Your task to perform on an android device: turn on showing notifications on the lock screen Image 0: 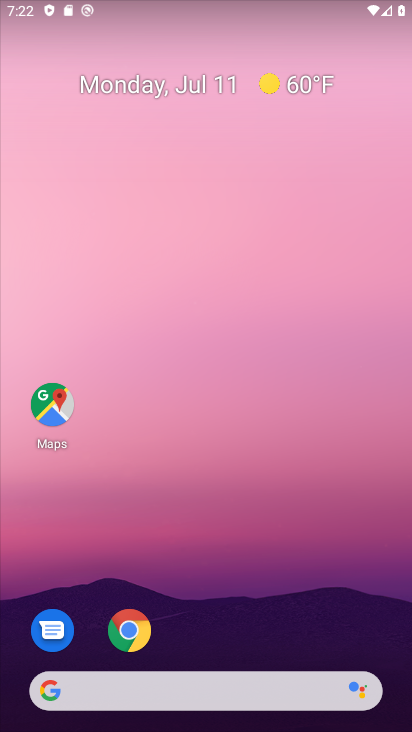
Step 0: drag from (385, 646) to (310, 19)
Your task to perform on an android device: turn on showing notifications on the lock screen Image 1: 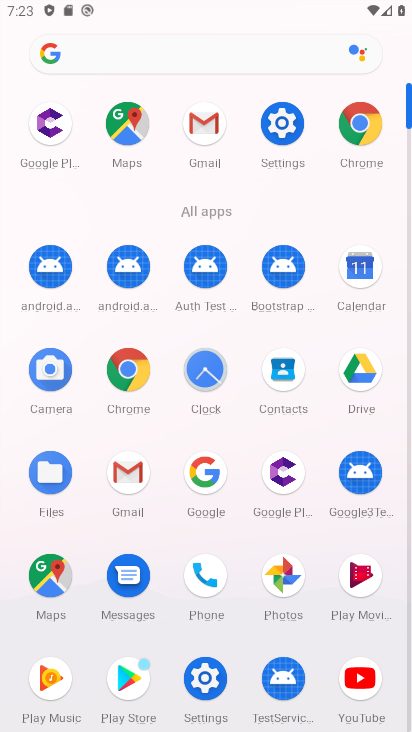
Step 1: click (212, 681)
Your task to perform on an android device: turn on showing notifications on the lock screen Image 2: 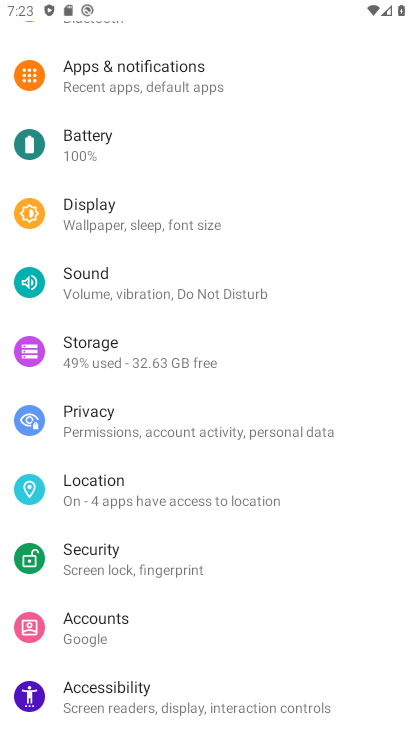
Step 2: click (144, 67)
Your task to perform on an android device: turn on showing notifications on the lock screen Image 3: 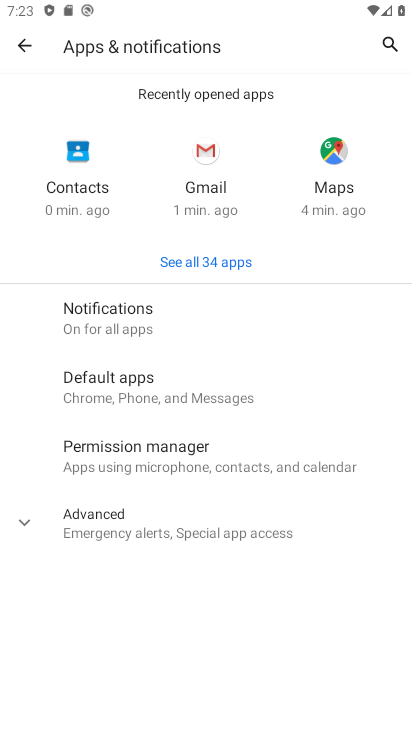
Step 3: click (101, 317)
Your task to perform on an android device: turn on showing notifications on the lock screen Image 4: 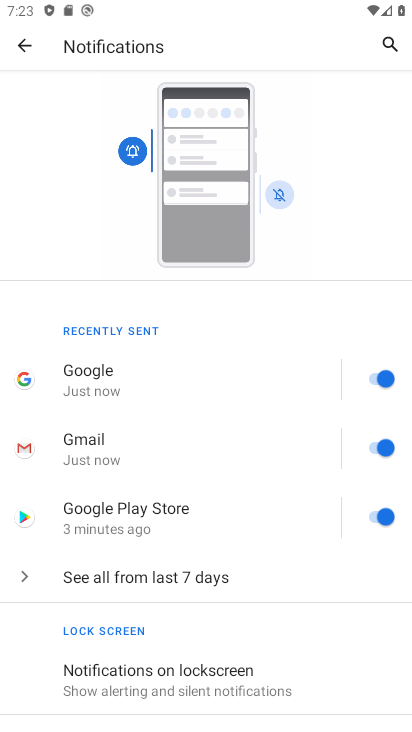
Step 4: drag from (272, 647) to (203, 441)
Your task to perform on an android device: turn on showing notifications on the lock screen Image 5: 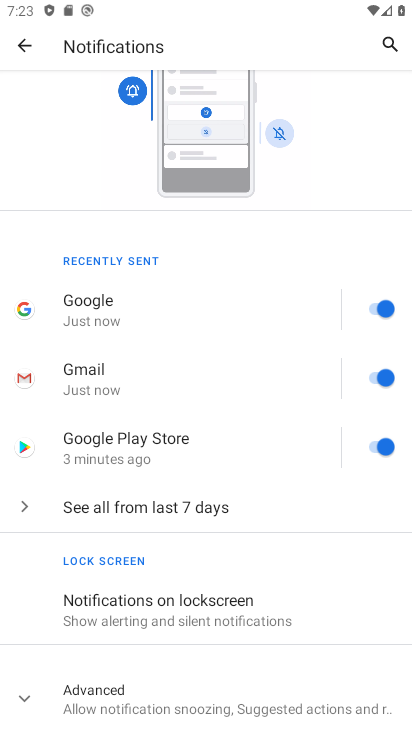
Step 5: click (163, 624)
Your task to perform on an android device: turn on showing notifications on the lock screen Image 6: 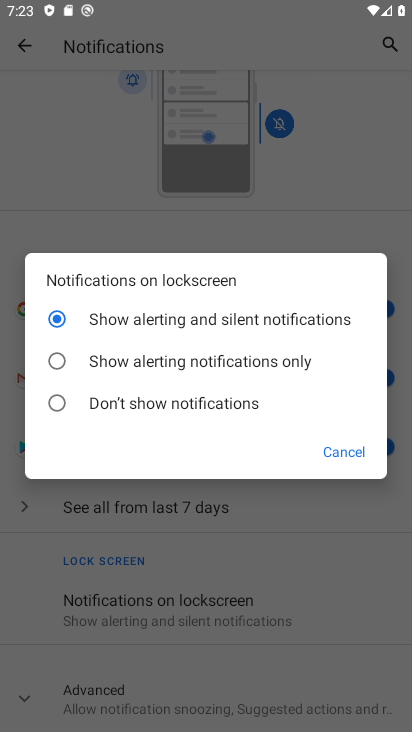
Step 6: task complete